Your task to perform on an android device: turn off priority inbox in the gmail app Image 0: 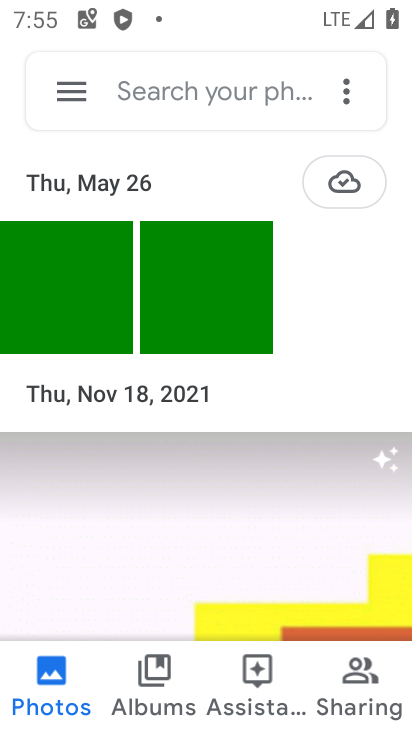
Step 0: press home button
Your task to perform on an android device: turn off priority inbox in the gmail app Image 1: 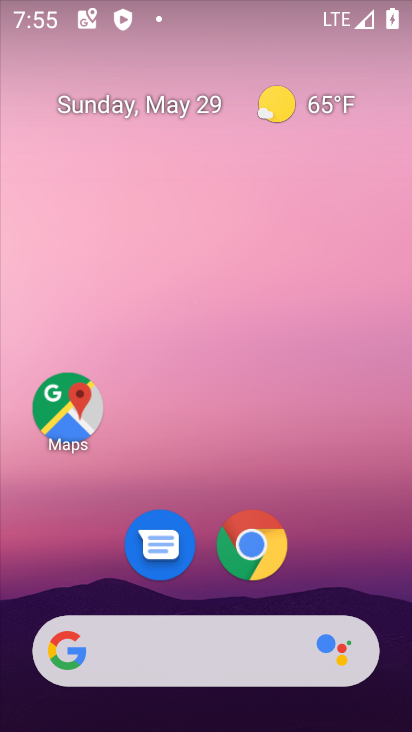
Step 1: drag from (213, 579) to (279, 224)
Your task to perform on an android device: turn off priority inbox in the gmail app Image 2: 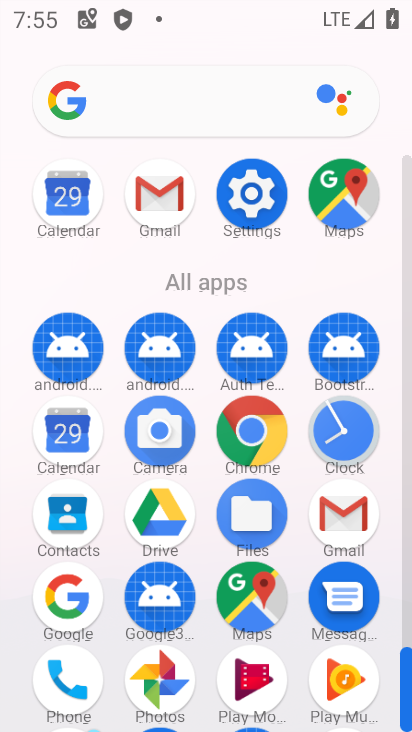
Step 2: click (154, 194)
Your task to perform on an android device: turn off priority inbox in the gmail app Image 3: 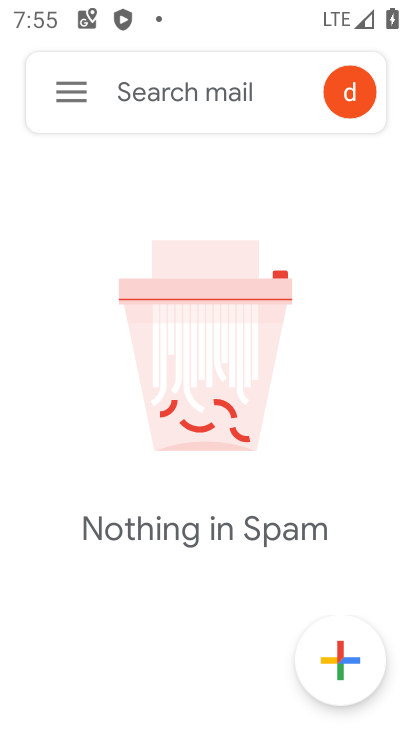
Step 3: click (56, 96)
Your task to perform on an android device: turn off priority inbox in the gmail app Image 4: 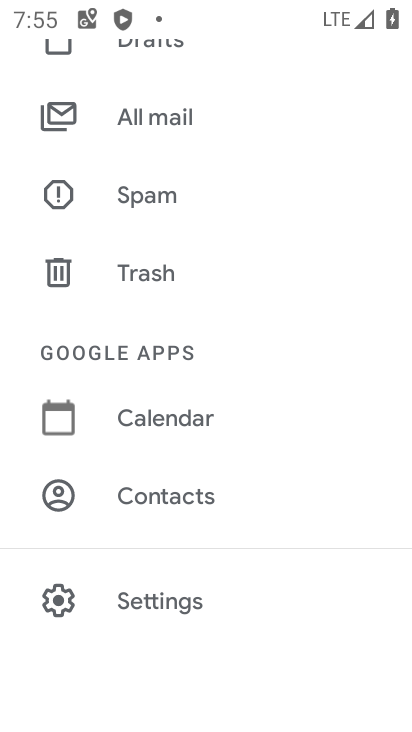
Step 4: click (160, 597)
Your task to perform on an android device: turn off priority inbox in the gmail app Image 5: 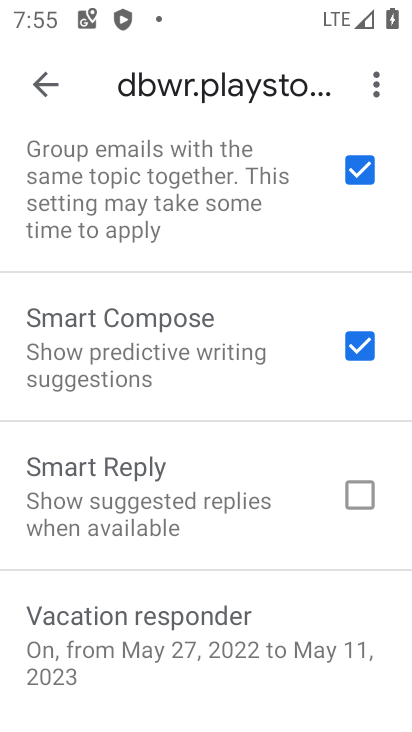
Step 5: drag from (192, 549) to (288, 325)
Your task to perform on an android device: turn off priority inbox in the gmail app Image 6: 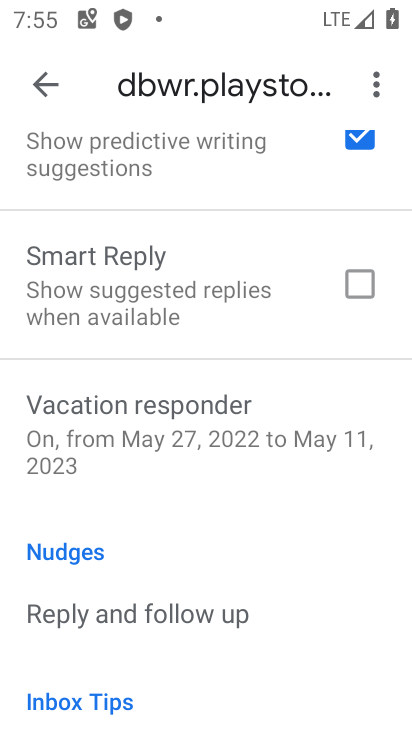
Step 6: drag from (175, 649) to (296, 333)
Your task to perform on an android device: turn off priority inbox in the gmail app Image 7: 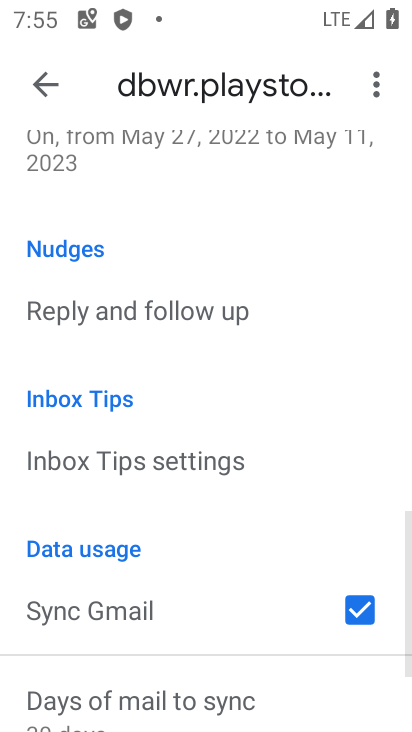
Step 7: drag from (216, 609) to (246, 690)
Your task to perform on an android device: turn off priority inbox in the gmail app Image 8: 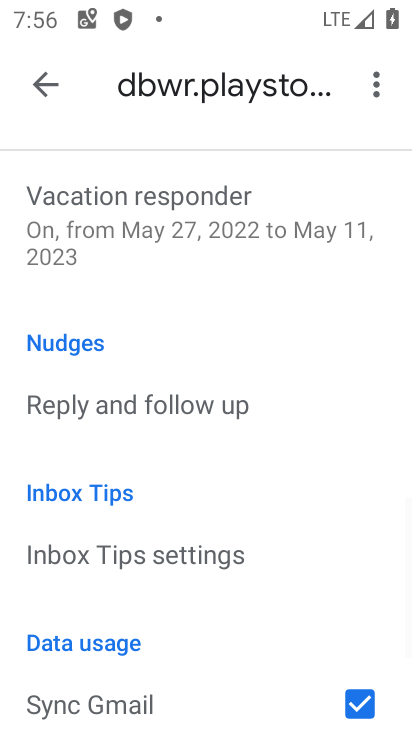
Step 8: drag from (239, 357) to (173, 639)
Your task to perform on an android device: turn off priority inbox in the gmail app Image 9: 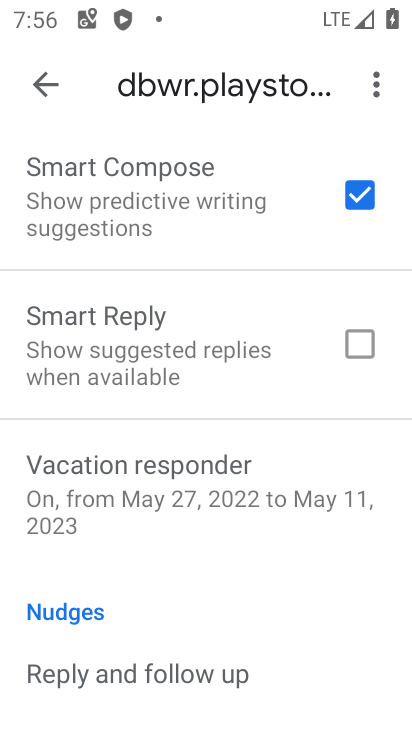
Step 9: drag from (219, 310) to (187, 603)
Your task to perform on an android device: turn off priority inbox in the gmail app Image 10: 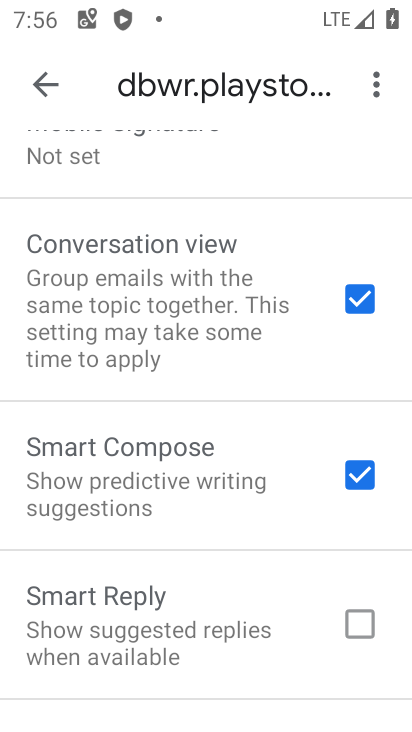
Step 10: drag from (257, 265) to (214, 533)
Your task to perform on an android device: turn off priority inbox in the gmail app Image 11: 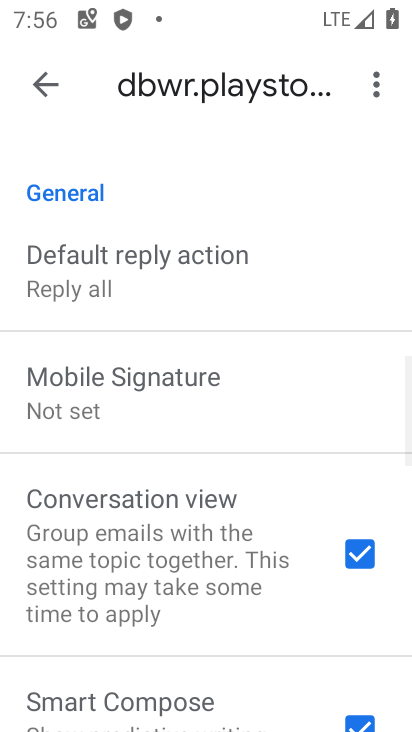
Step 11: drag from (278, 214) to (231, 518)
Your task to perform on an android device: turn off priority inbox in the gmail app Image 12: 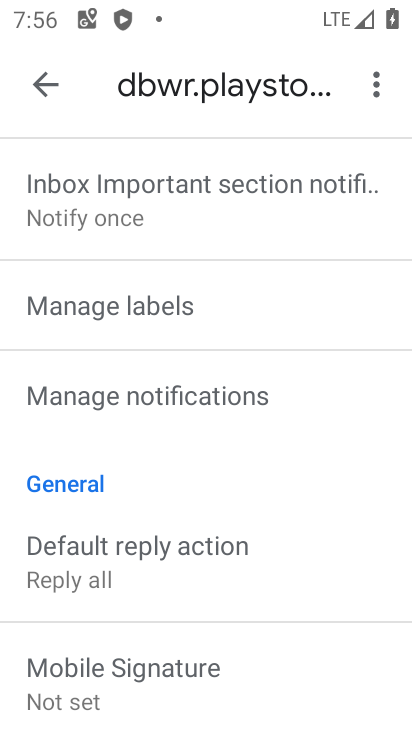
Step 12: drag from (126, 607) to (215, 247)
Your task to perform on an android device: turn off priority inbox in the gmail app Image 13: 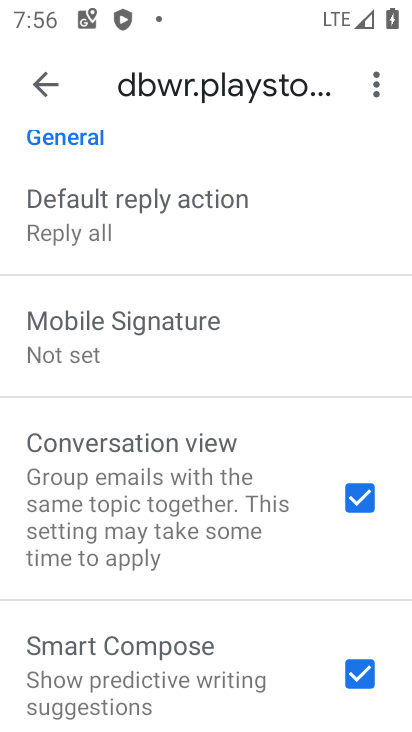
Step 13: drag from (139, 589) to (239, 246)
Your task to perform on an android device: turn off priority inbox in the gmail app Image 14: 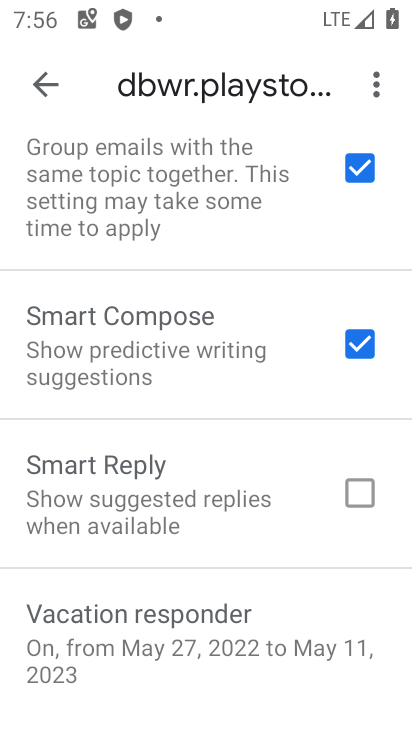
Step 14: drag from (152, 689) to (247, 393)
Your task to perform on an android device: turn off priority inbox in the gmail app Image 15: 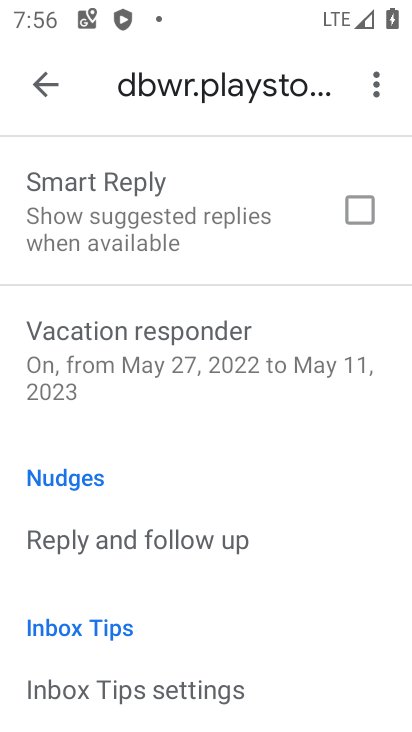
Step 15: drag from (244, 631) to (304, 352)
Your task to perform on an android device: turn off priority inbox in the gmail app Image 16: 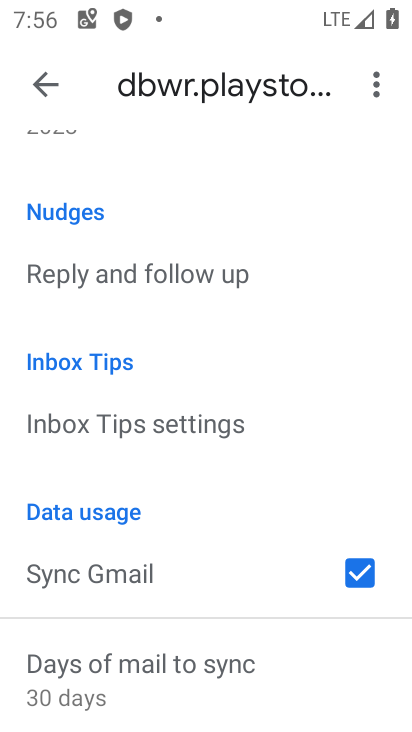
Step 16: drag from (226, 342) to (208, 695)
Your task to perform on an android device: turn off priority inbox in the gmail app Image 17: 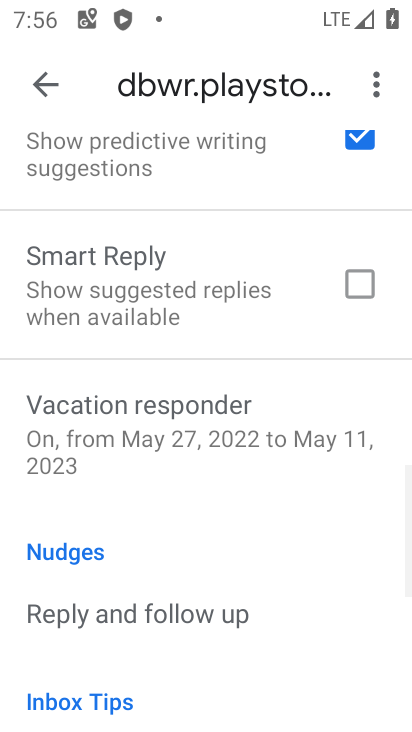
Step 17: drag from (275, 314) to (203, 637)
Your task to perform on an android device: turn off priority inbox in the gmail app Image 18: 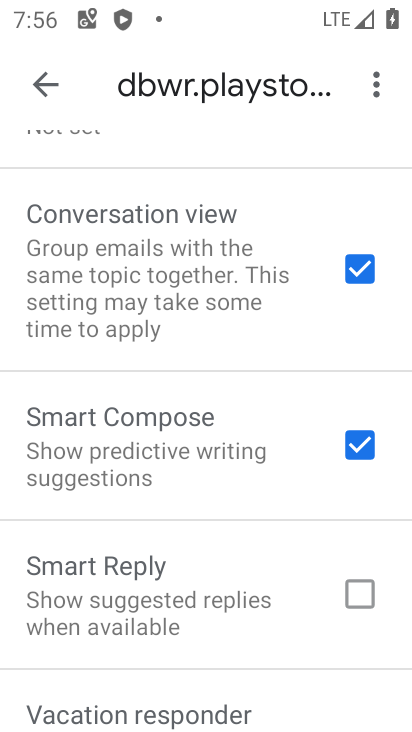
Step 18: drag from (214, 462) to (173, 654)
Your task to perform on an android device: turn off priority inbox in the gmail app Image 19: 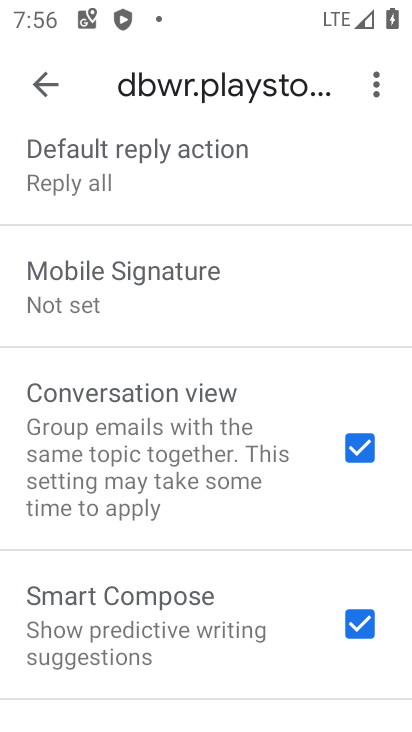
Step 19: drag from (224, 351) to (186, 569)
Your task to perform on an android device: turn off priority inbox in the gmail app Image 20: 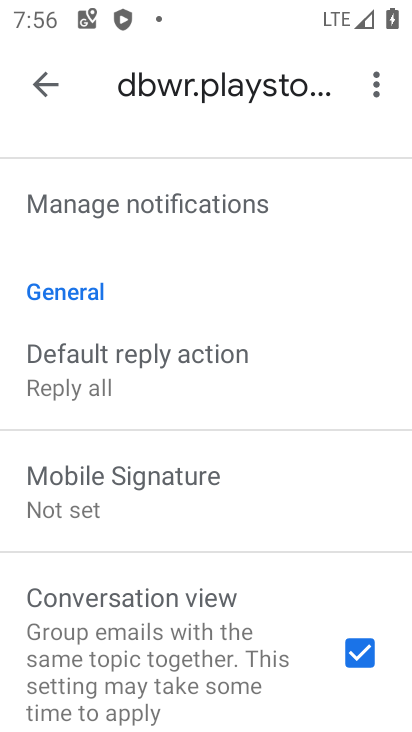
Step 20: drag from (210, 372) to (170, 591)
Your task to perform on an android device: turn off priority inbox in the gmail app Image 21: 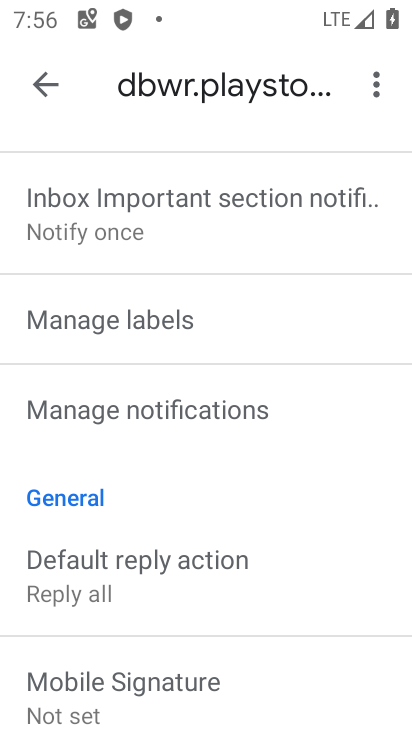
Step 21: drag from (196, 310) to (127, 578)
Your task to perform on an android device: turn off priority inbox in the gmail app Image 22: 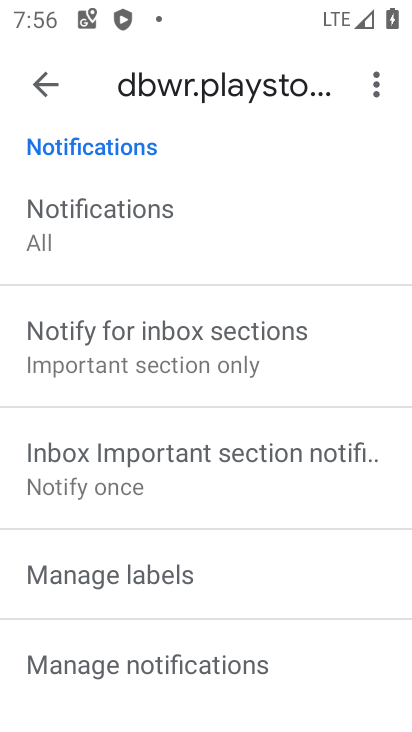
Step 22: drag from (155, 238) to (122, 603)
Your task to perform on an android device: turn off priority inbox in the gmail app Image 23: 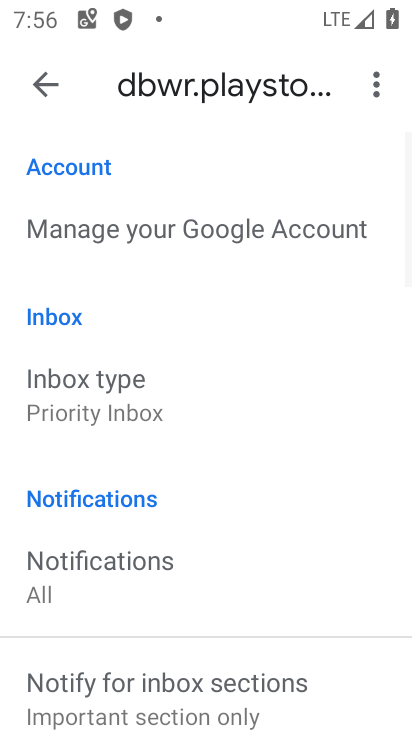
Step 23: click (165, 352)
Your task to perform on an android device: turn off priority inbox in the gmail app Image 24: 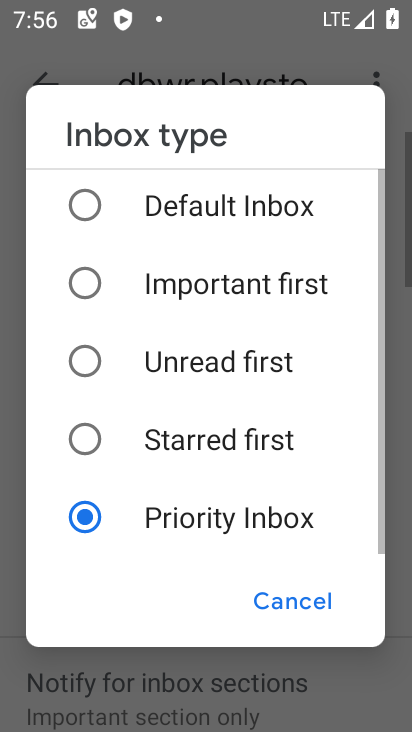
Step 24: click (145, 386)
Your task to perform on an android device: turn off priority inbox in the gmail app Image 25: 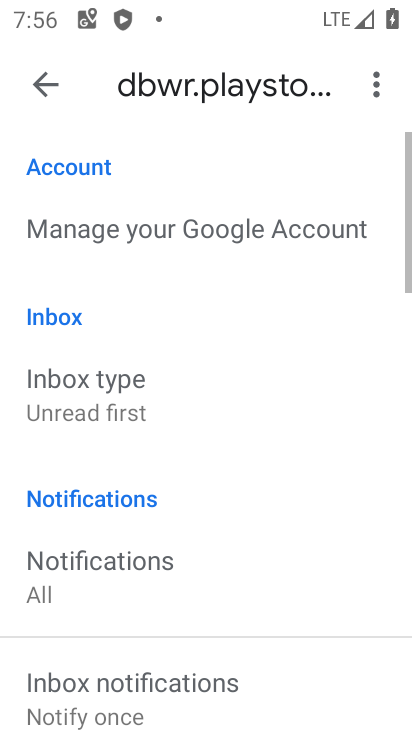
Step 25: click (49, 384)
Your task to perform on an android device: turn off priority inbox in the gmail app Image 26: 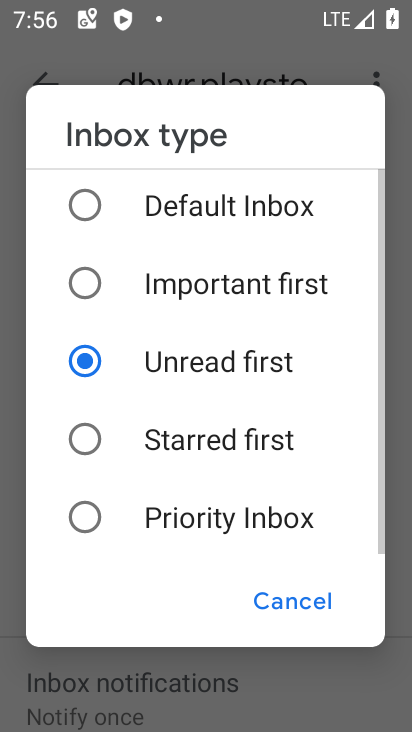
Step 26: click (72, 194)
Your task to perform on an android device: turn off priority inbox in the gmail app Image 27: 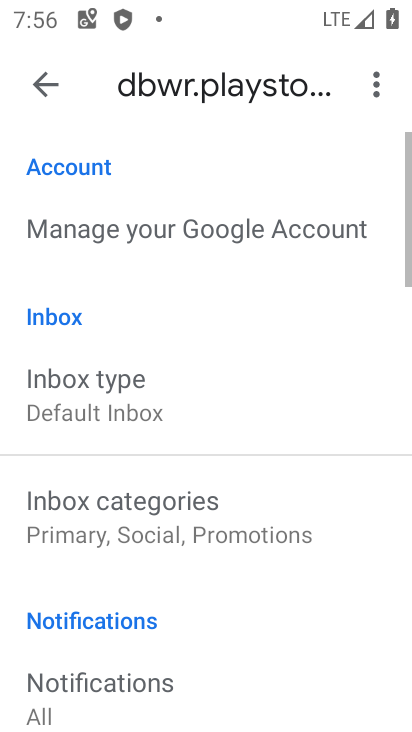
Step 27: task complete